Your task to perform on an android device: Open Reddit.com Image 0: 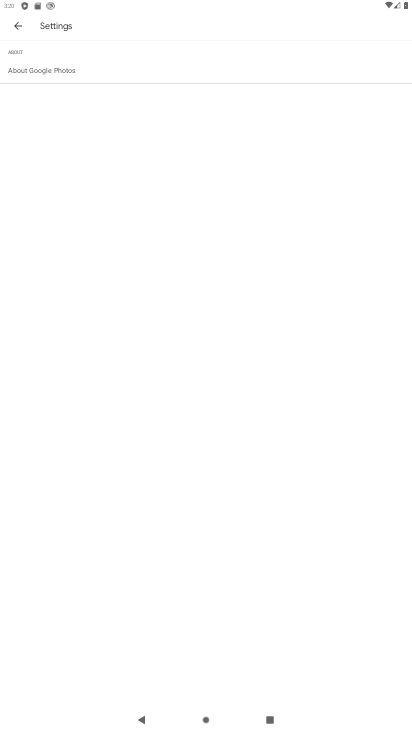
Step 0: press home button
Your task to perform on an android device: Open Reddit.com Image 1: 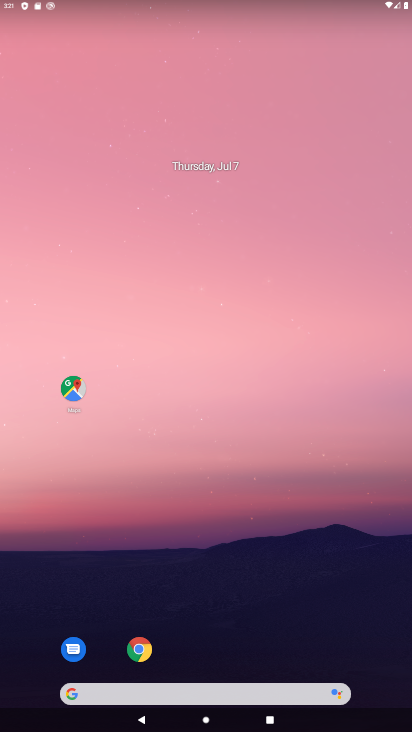
Step 1: drag from (334, 621) to (239, 28)
Your task to perform on an android device: Open Reddit.com Image 2: 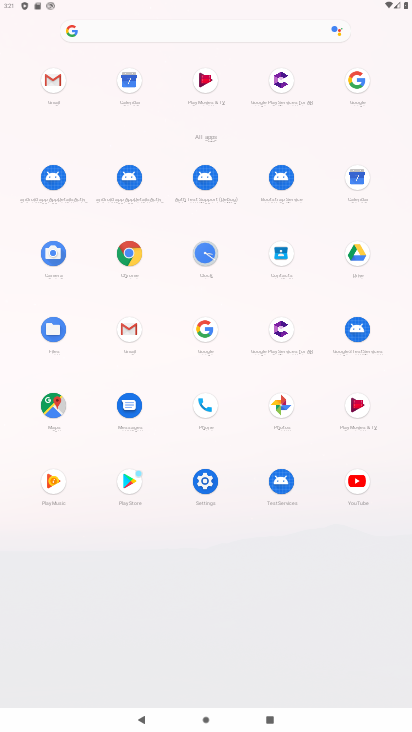
Step 2: click (353, 91)
Your task to perform on an android device: Open Reddit.com Image 3: 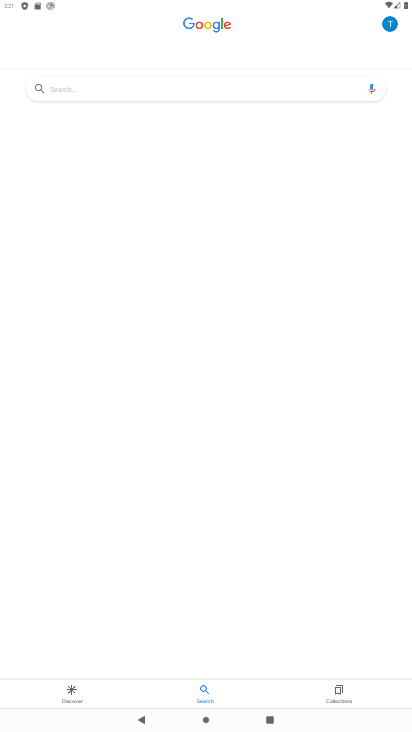
Step 3: click (143, 87)
Your task to perform on an android device: Open Reddit.com Image 4: 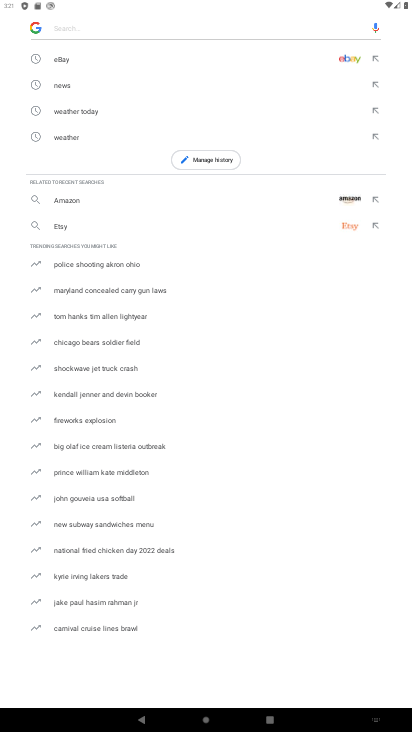
Step 4: type "reddit.com"
Your task to perform on an android device: Open Reddit.com Image 5: 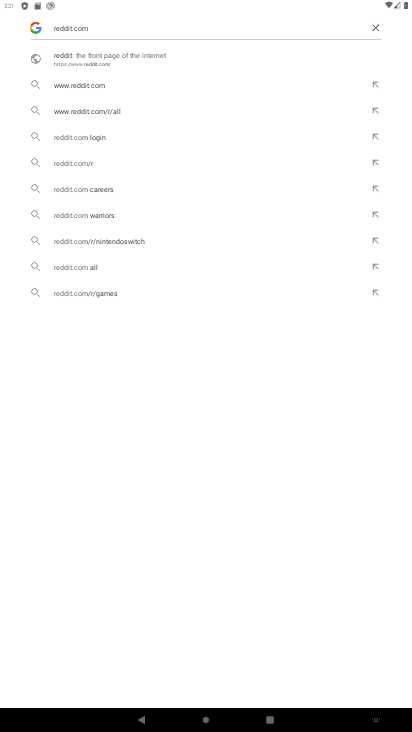
Step 5: click (67, 61)
Your task to perform on an android device: Open Reddit.com Image 6: 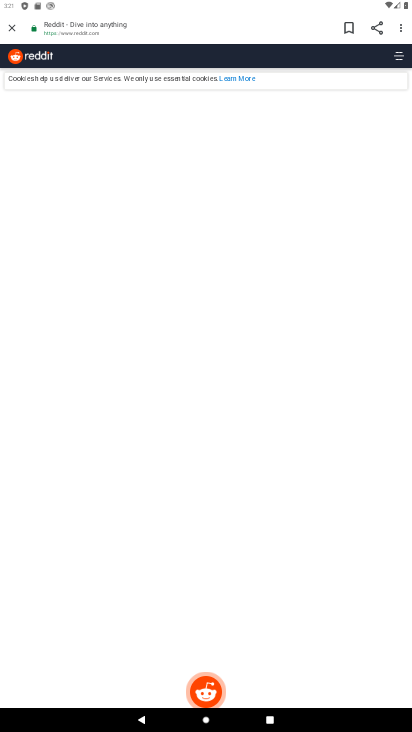
Step 6: task complete